Your task to perform on an android device: allow notifications from all sites in the chrome app Image 0: 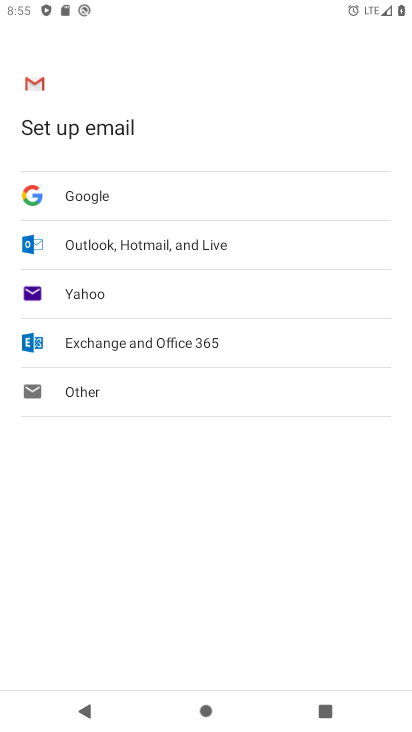
Step 0: press home button
Your task to perform on an android device: allow notifications from all sites in the chrome app Image 1: 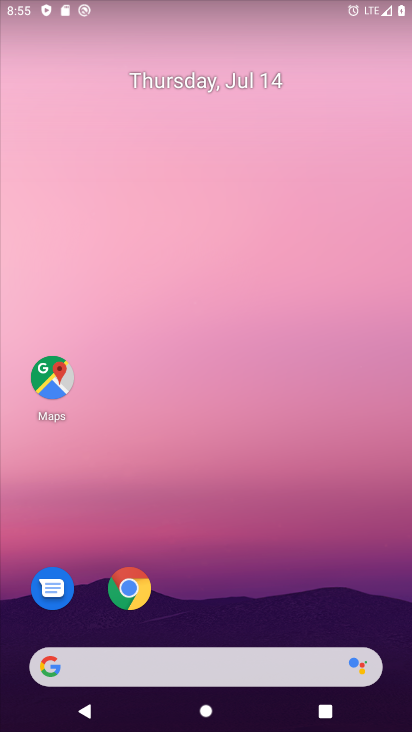
Step 1: drag from (282, 571) to (210, 5)
Your task to perform on an android device: allow notifications from all sites in the chrome app Image 2: 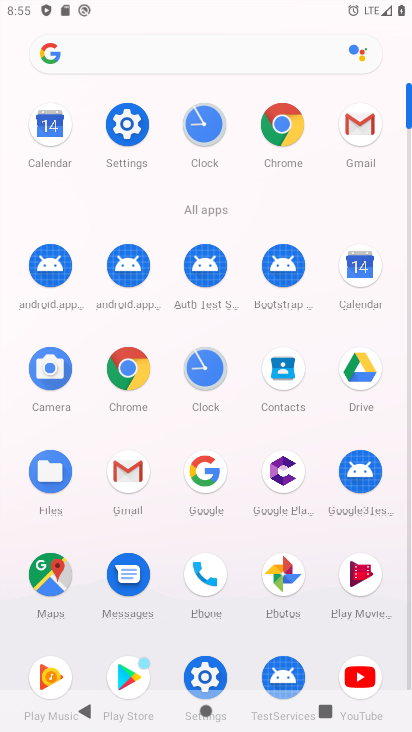
Step 2: click (264, 131)
Your task to perform on an android device: allow notifications from all sites in the chrome app Image 3: 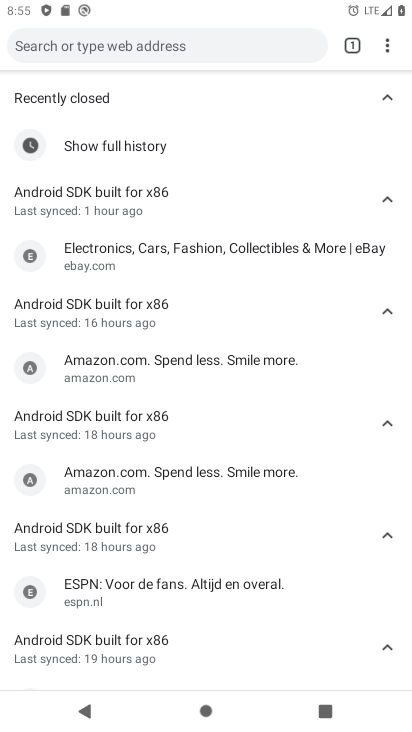
Step 3: drag from (394, 51) to (256, 379)
Your task to perform on an android device: allow notifications from all sites in the chrome app Image 4: 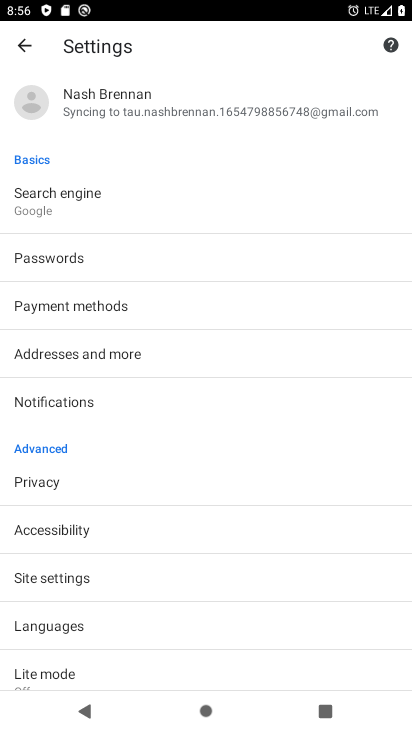
Step 4: click (86, 580)
Your task to perform on an android device: allow notifications from all sites in the chrome app Image 5: 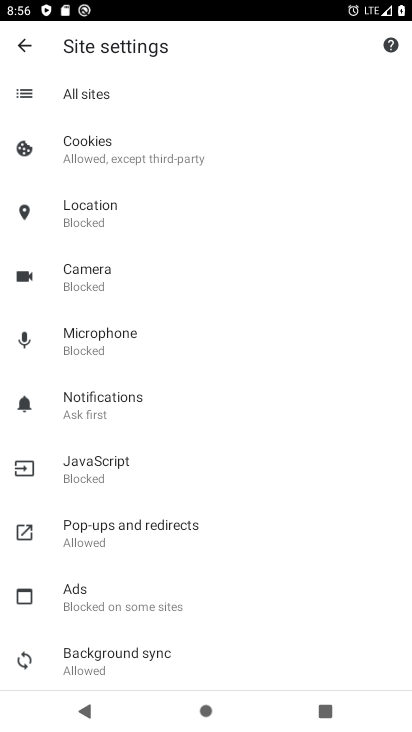
Step 5: click (108, 411)
Your task to perform on an android device: allow notifications from all sites in the chrome app Image 6: 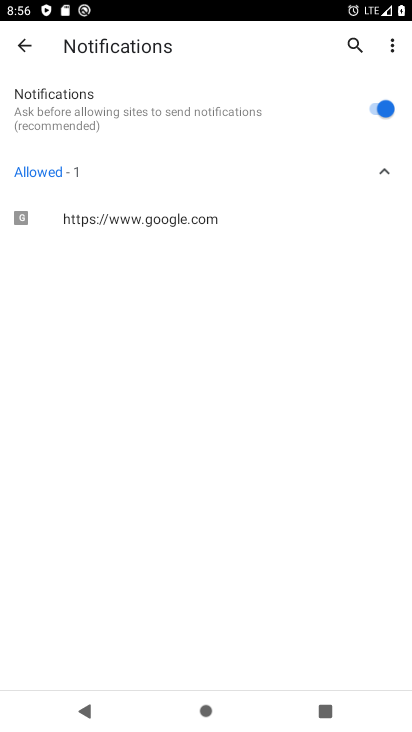
Step 6: task complete